Your task to perform on an android device: turn off javascript in the chrome app Image 0: 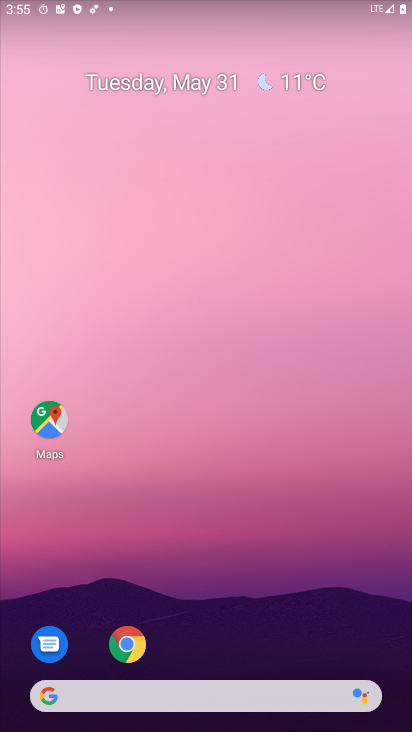
Step 0: click (140, 644)
Your task to perform on an android device: turn off javascript in the chrome app Image 1: 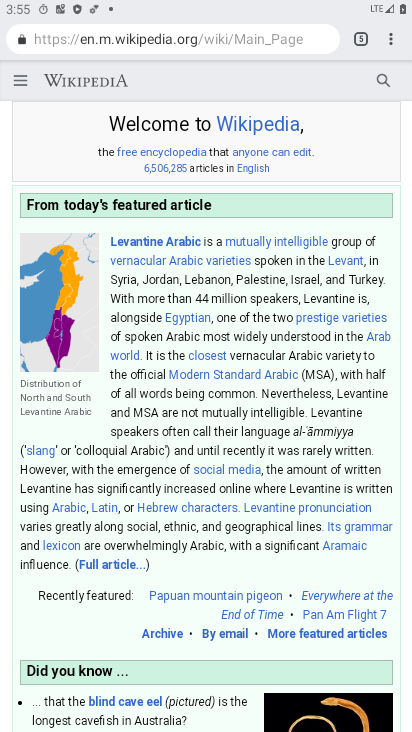
Step 1: click (399, 35)
Your task to perform on an android device: turn off javascript in the chrome app Image 2: 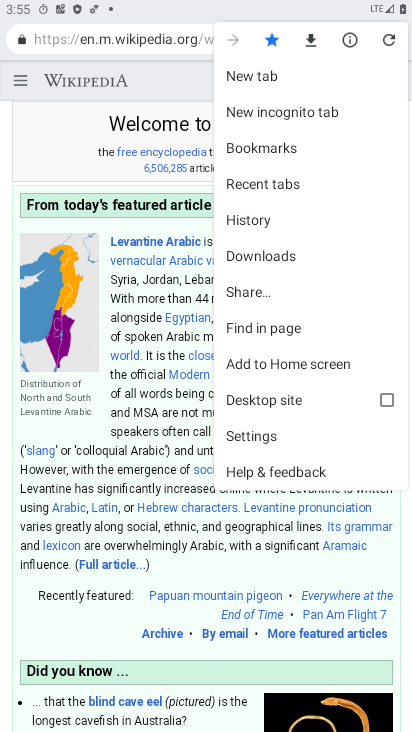
Step 2: click (272, 431)
Your task to perform on an android device: turn off javascript in the chrome app Image 3: 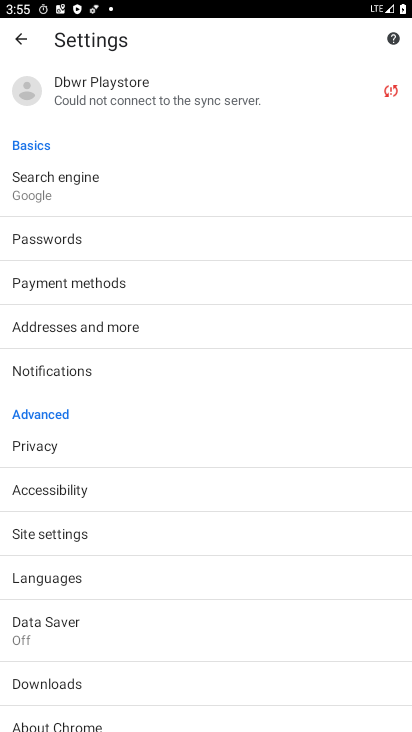
Step 3: click (101, 535)
Your task to perform on an android device: turn off javascript in the chrome app Image 4: 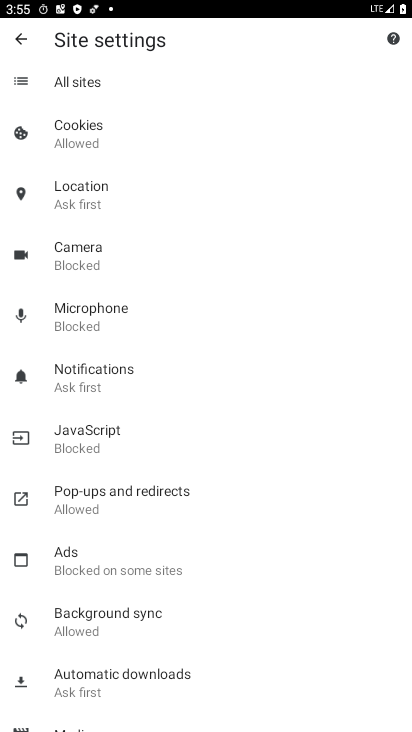
Step 4: click (100, 429)
Your task to perform on an android device: turn off javascript in the chrome app Image 5: 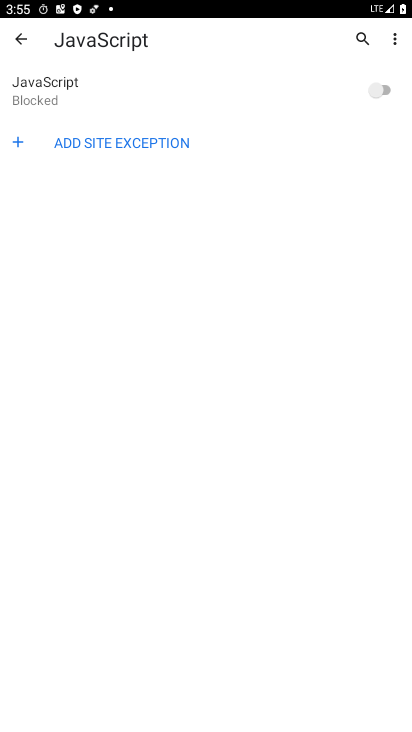
Step 5: task complete